Your task to perform on an android device: Open Reddit.com Image 0: 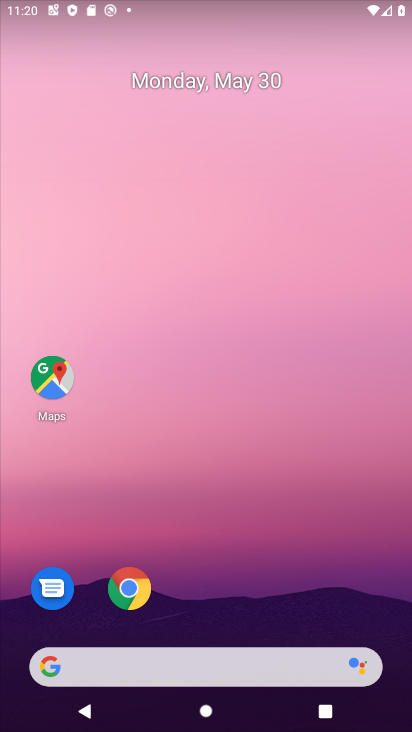
Step 0: press home button
Your task to perform on an android device: Open Reddit.com Image 1: 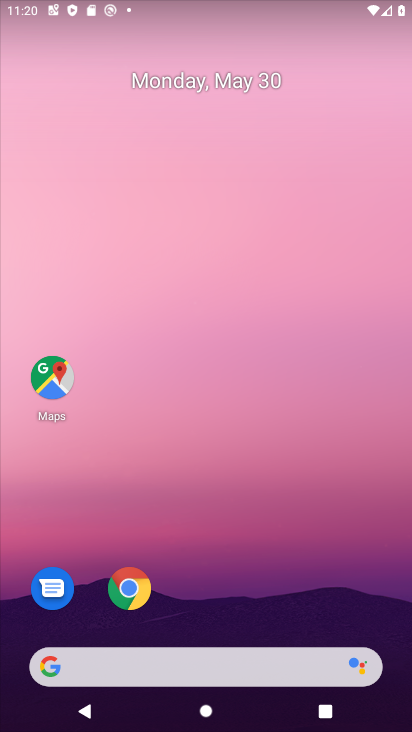
Step 1: click (123, 590)
Your task to perform on an android device: Open Reddit.com Image 2: 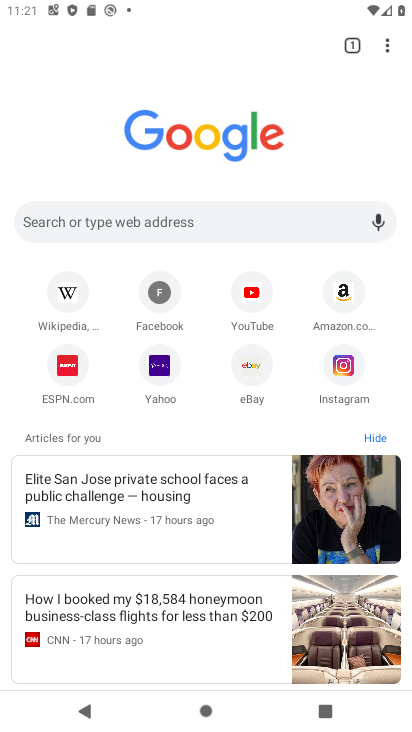
Step 2: click (120, 214)
Your task to perform on an android device: Open Reddit.com Image 3: 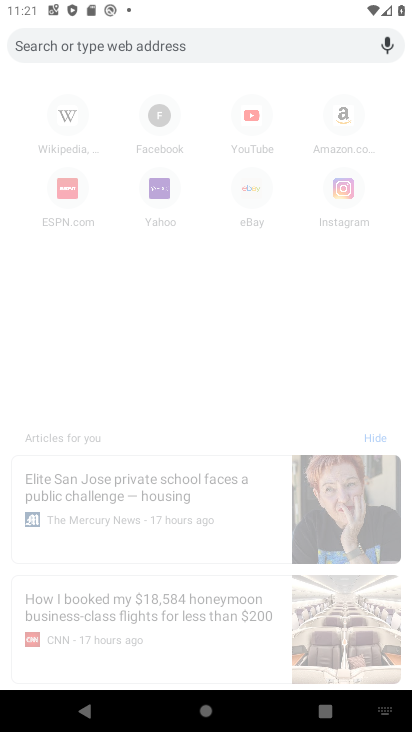
Step 3: type "reddit"
Your task to perform on an android device: Open Reddit.com Image 4: 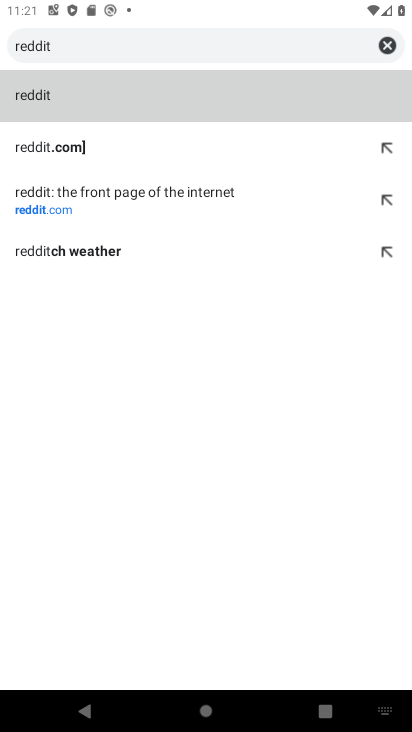
Step 4: click (86, 204)
Your task to perform on an android device: Open Reddit.com Image 5: 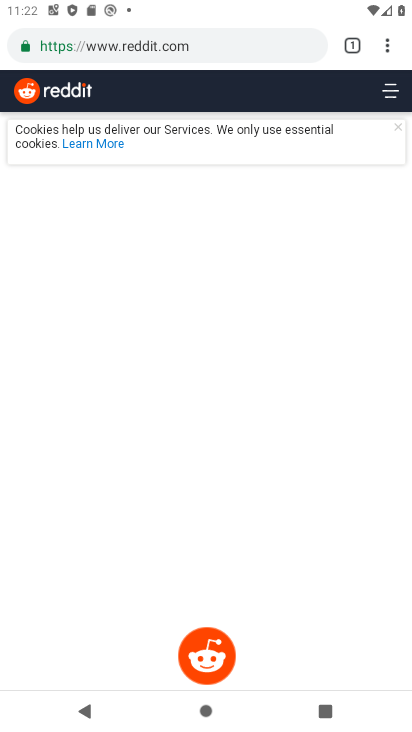
Step 5: task complete